Your task to perform on an android device: Go to Amazon Image 0: 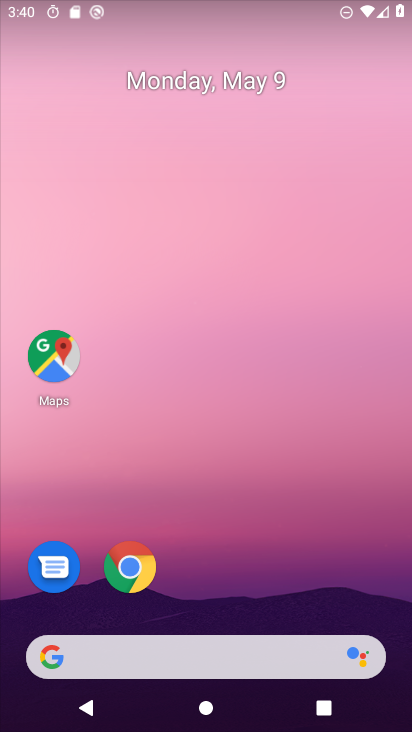
Step 0: click (144, 562)
Your task to perform on an android device: Go to Amazon Image 1: 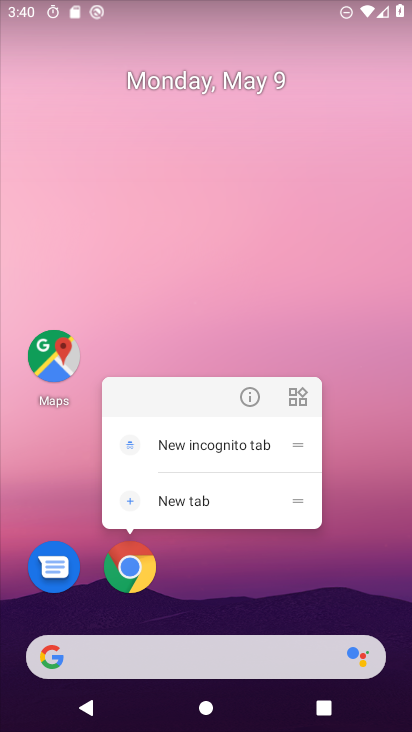
Step 1: click (135, 558)
Your task to perform on an android device: Go to Amazon Image 2: 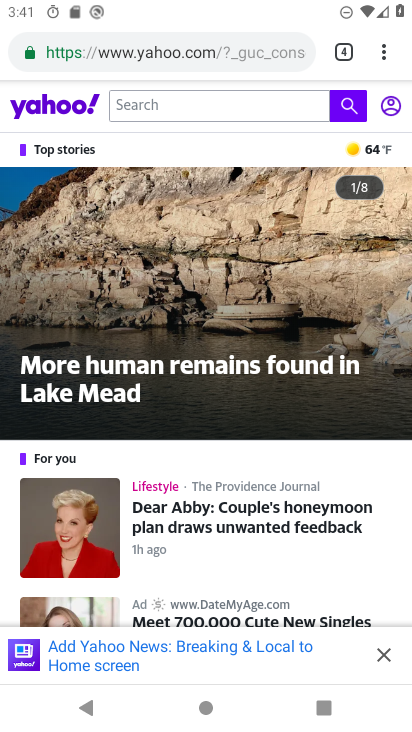
Step 2: click (349, 56)
Your task to perform on an android device: Go to Amazon Image 3: 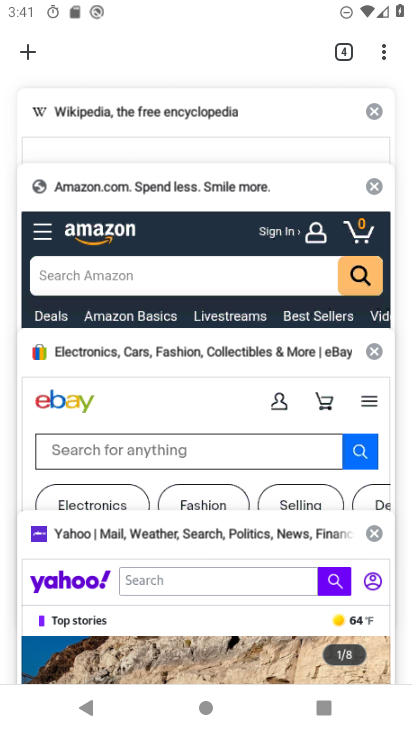
Step 3: click (191, 223)
Your task to perform on an android device: Go to Amazon Image 4: 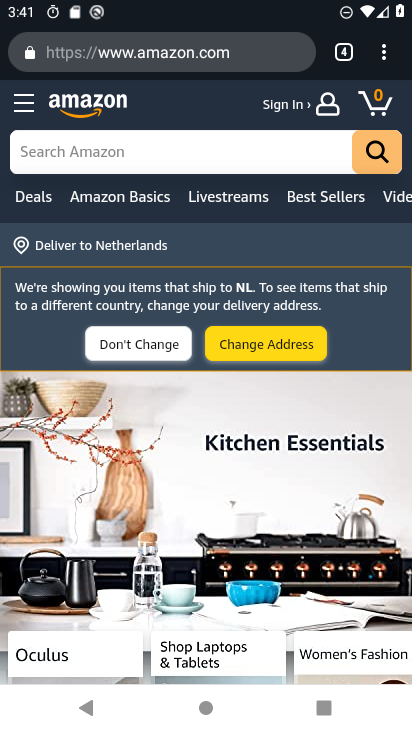
Step 4: task complete